Your task to perform on an android device: Open Google Maps and go to "Timeline" Image 0: 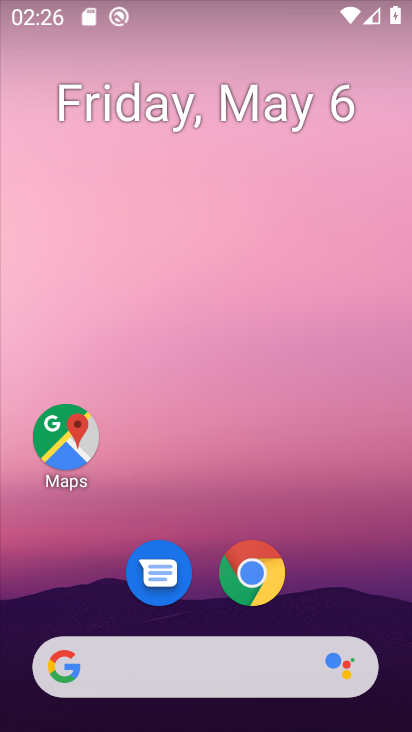
Step 0: drag from (324, 568) to (331, 259)
Your task to perform on an android device: Open Google Maps and go to "Timeline" Image 1: 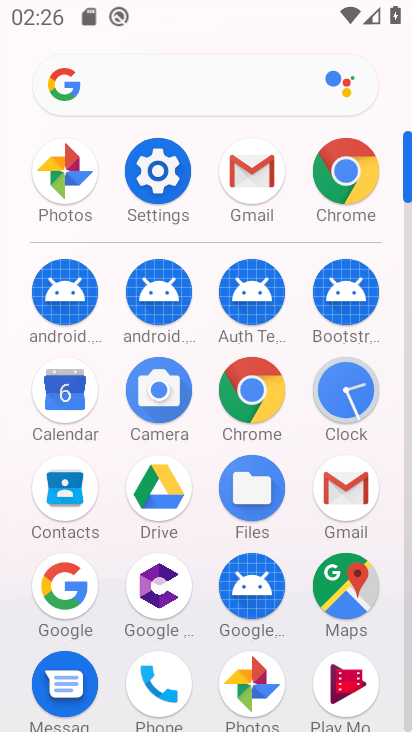
Step 1: click (358, 593)
Your task to perform on an android device: Open Google Maps and go to "Timeline" Image 2: 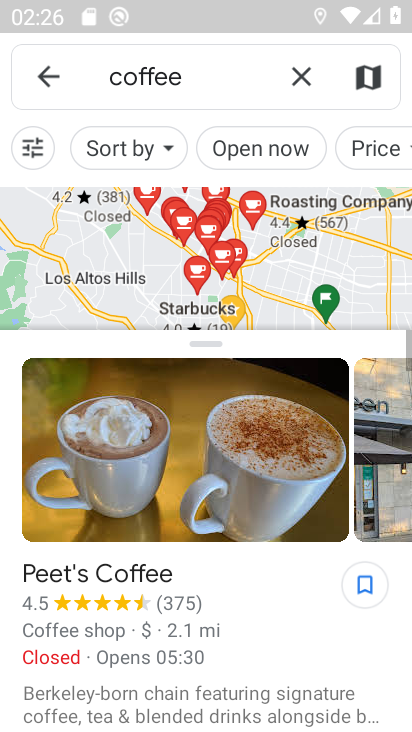
Step 2: click (299, 69)
Your task to perform on an android device: Open Google Maps and go to "Timeline" Image 3: 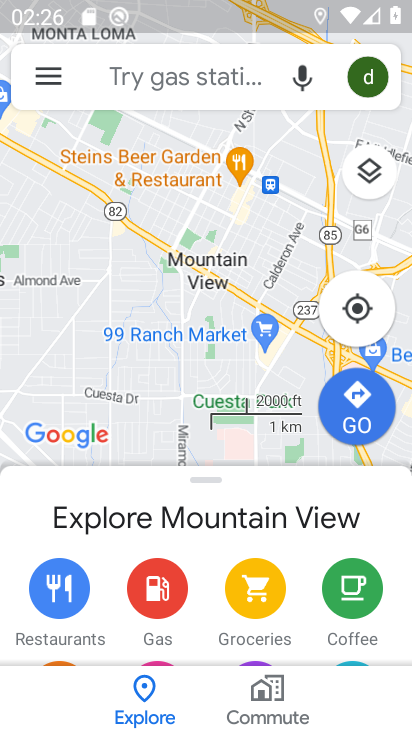
Step 3: click (43, 77)
Your task to perform on an android device: Open Google Maps and go to "Timeline" Image 4: 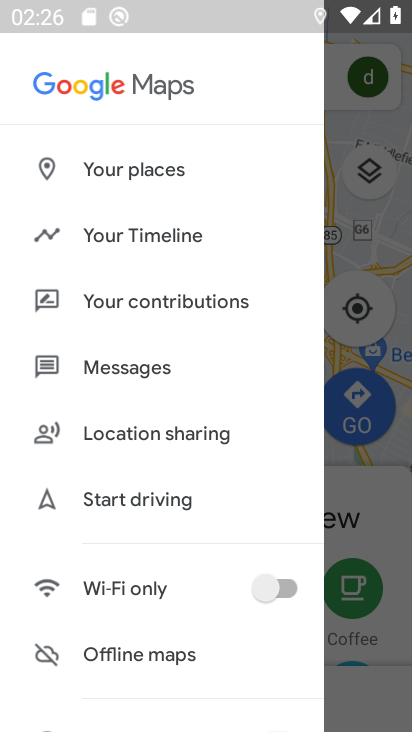
Step 4: click (147, 236)
Your task to perform on an android device: Open Google Maps and go to "Timeline" Image 5: 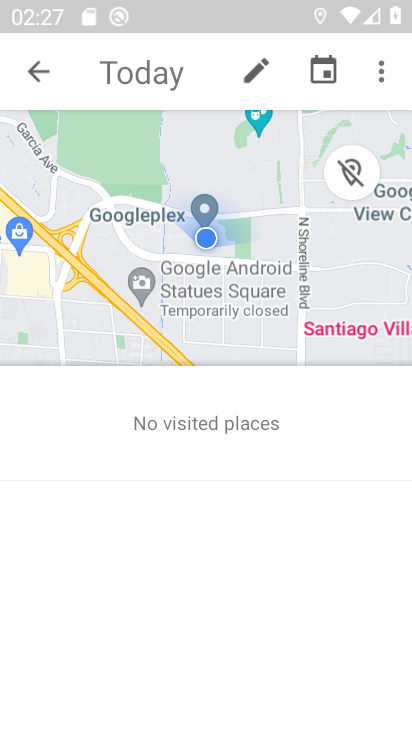
Step 5: task complete